Your task to perform on an android device: Go to sound settings Image 0: 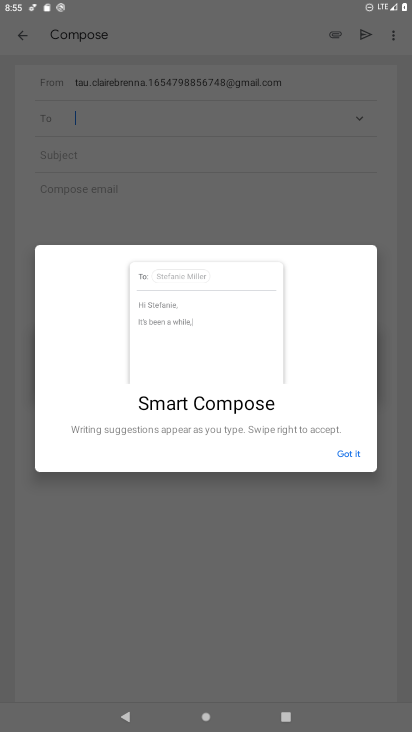
Step 0: press home button
Your task to perform on an android device: Go to sound settings Image 1: 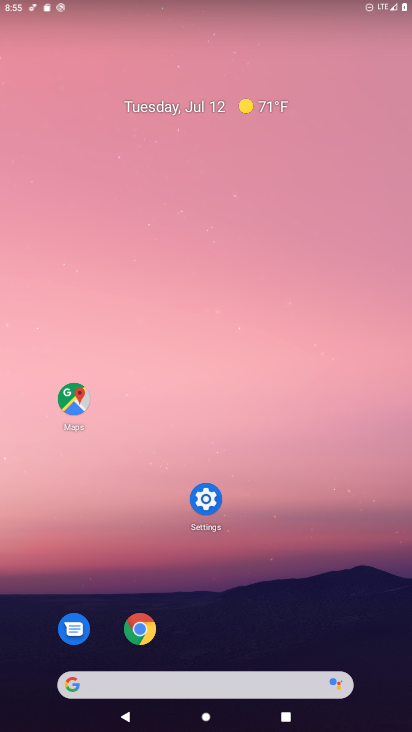
Step 1: click (206, 510)
Your task to perform on an android device: Go to sound settings Image 2: 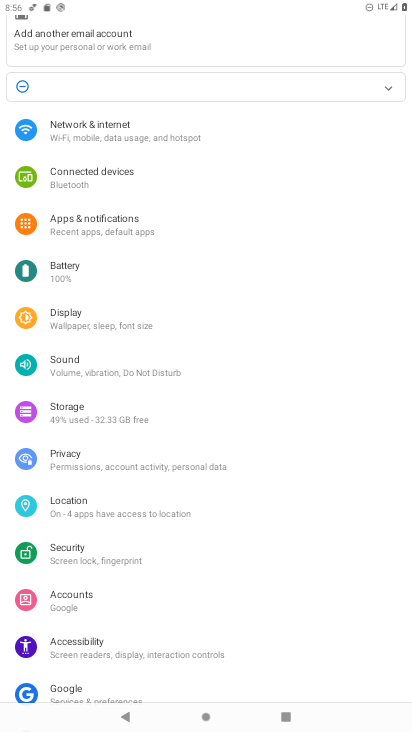
Step 2: click (69, 360)
Your task to perform on an android device: Go to sound settings Image 3: 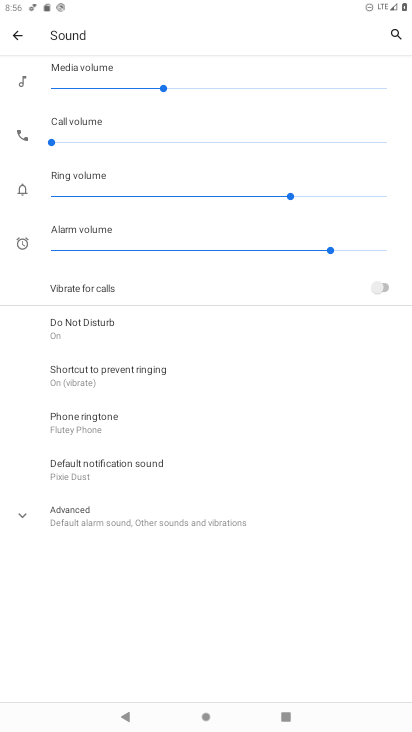
Step 3: task complete